Your task to perform on an android device: Search for pizza restaurants on Maps Image 0: 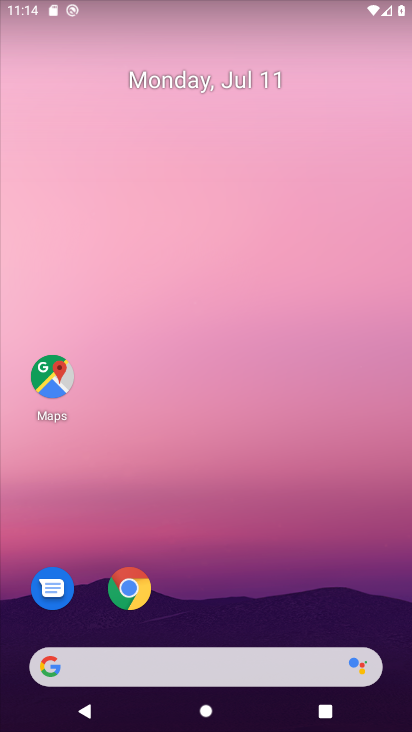
Step 0: drag from (254, 689) to (282, 418)
Your task to perform on an android device: Search for pizza restaurants on Maps Image 1: 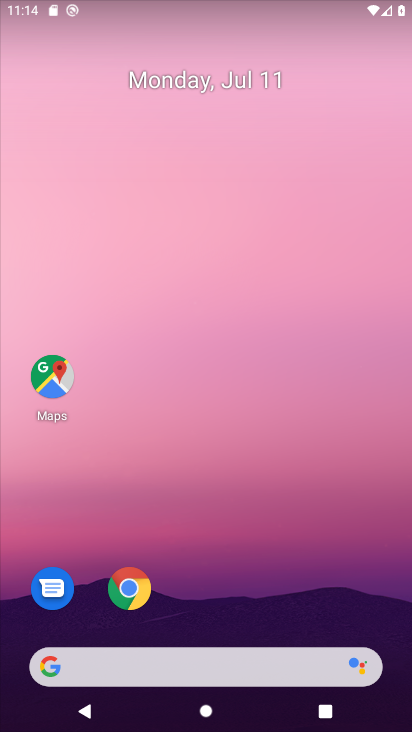
Step 1: drag from (285, 561) to (280, 203)
Your task to perform on an android device: Search for pizza restaurants on Maps Image 2: 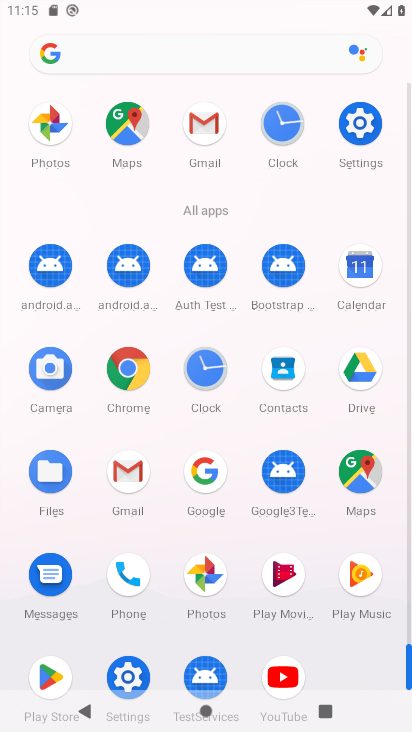
Step 2: press back button
Your task to perform on an android device: Search for pizza restaurants on Maps Image 3: 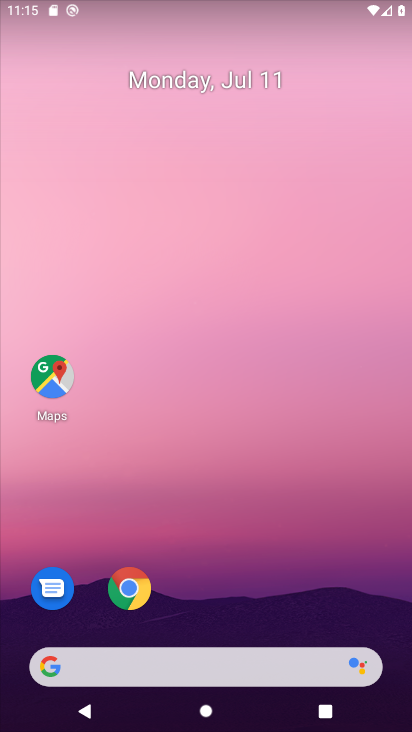
Step 3: drag from (239, 63) to (227, 21)
Your task to perform on an android device: Search for pizza restaurants on Maps Image 4: 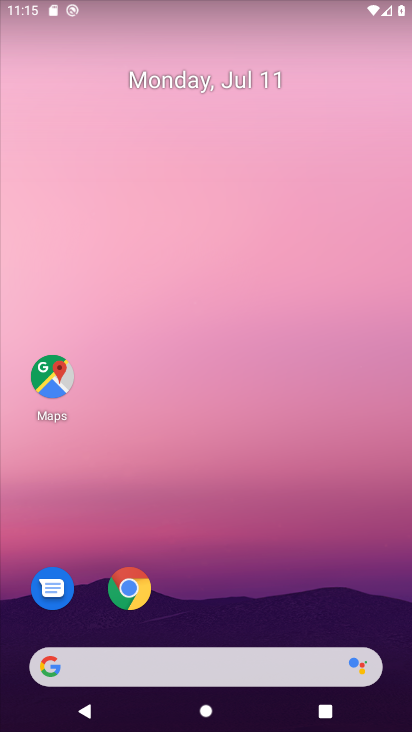
Step 4: click (213, 60)
Your task to perform on an android device: Search for pizza restaurants on Maps Image 5: 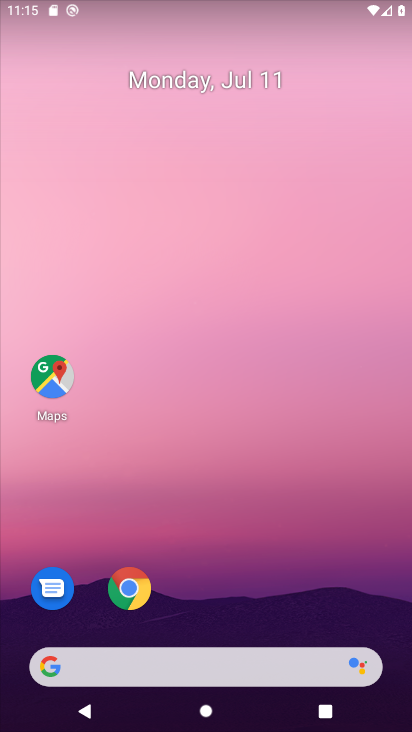
Step 5: drag from (250, 529) to (246, 4)
Your task to perform on an android device: Search for pizza restaurants on Maps Image 6: 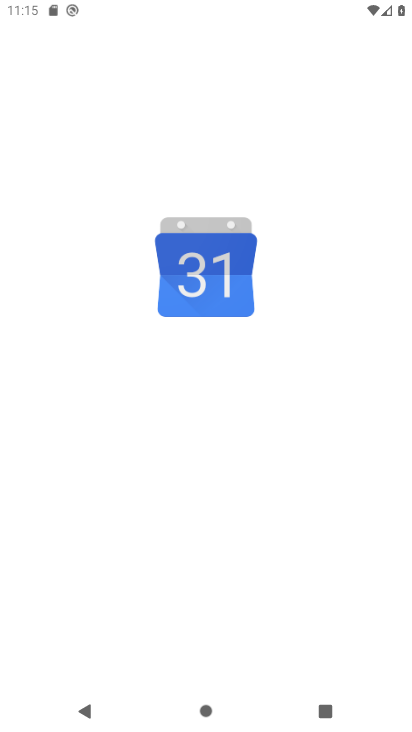
Step 6: drag from (278, 469) to (258, 237)
Your task to perform on an android device: Search for pizza restaurants on Maps Image 7: 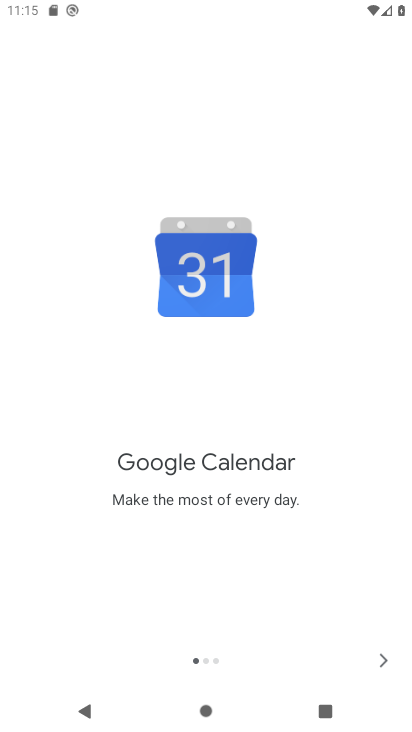
Step 7: press back button
Your task to perform on an android device: Search for pizza restaurants on Maps Image 8: 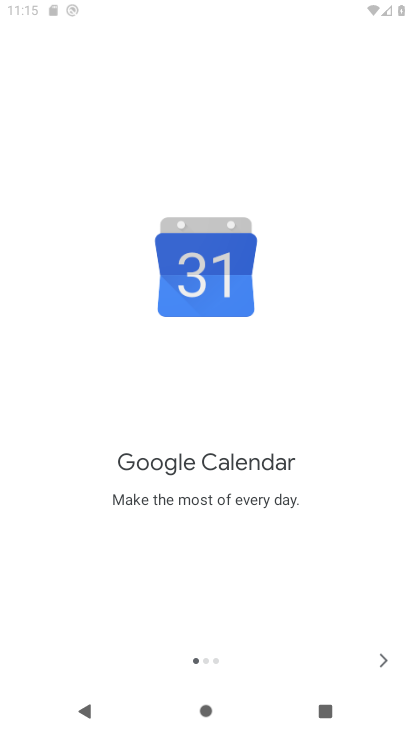
Step 8: press back button
Your task to perform on an android device: Search for pizza restaurants on Maps Image 9: 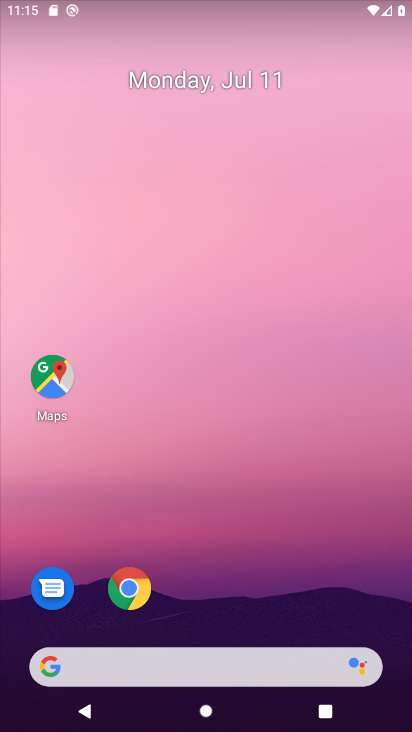
Step 9: drag from (271, 698) to (268, 202)
Your task to perform on an android device: Search for pizza restaurants on Maps Image 10: 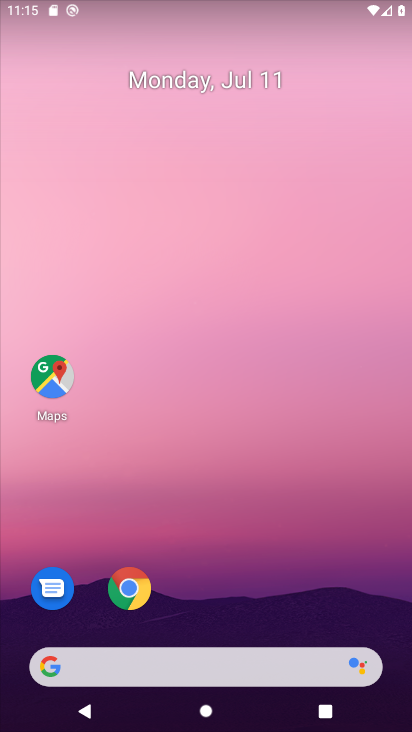
Step 10: drag from (224, 653) to (194, 71)
Your task to perform on an android device: Search for pizza restaurants on Maps Image 11: 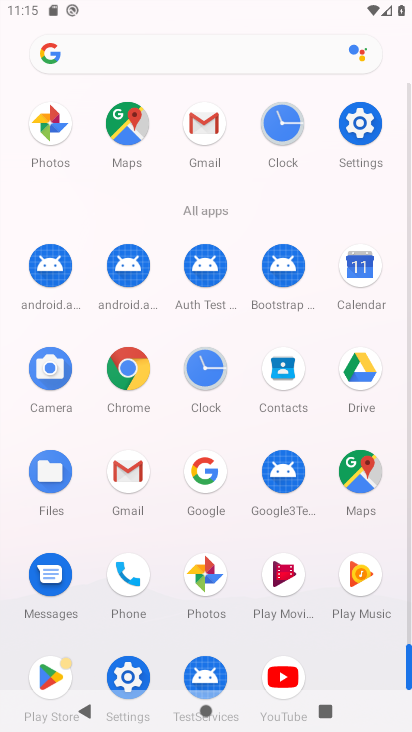
Step 11: click (358, 472)
Your task to perform on an android device: Search for pizza restaurants on Maps Image 12: 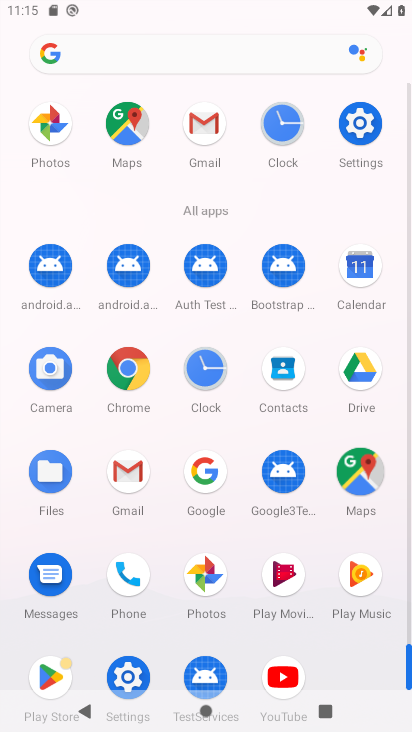
Step 12: click (364, 483)
Your task to perform on an android device: Search for pizza restaurants on Maps Image 13: 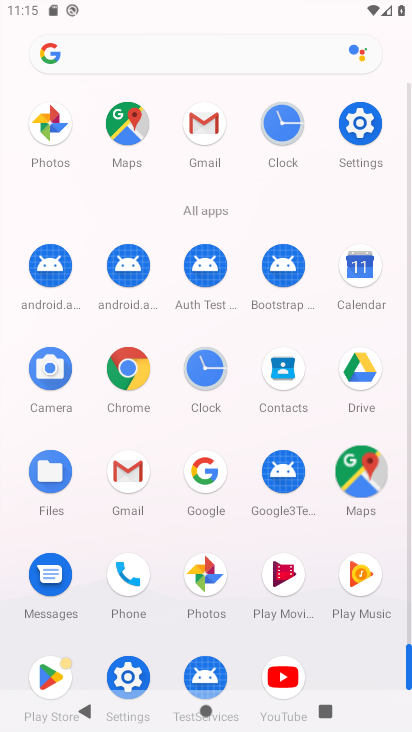
Step 13: click (365, 485)
Your task to perform on an android device: Search for pizza restaurants on Maps Image 14: 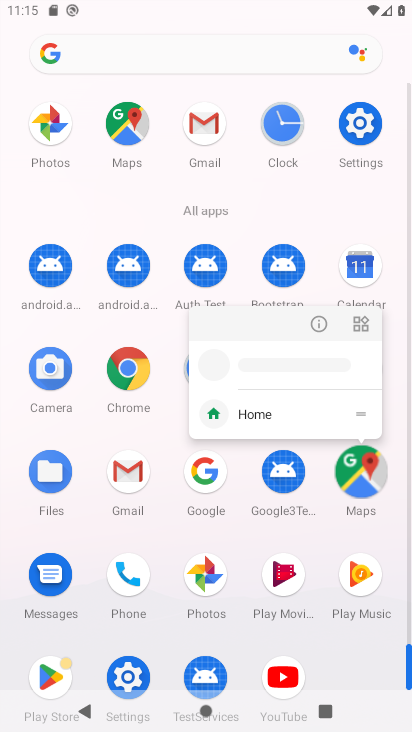
Step 14: click (374, 474)
Your task to perform on an android device: Search for pizza restaurants on Maps Image 15: 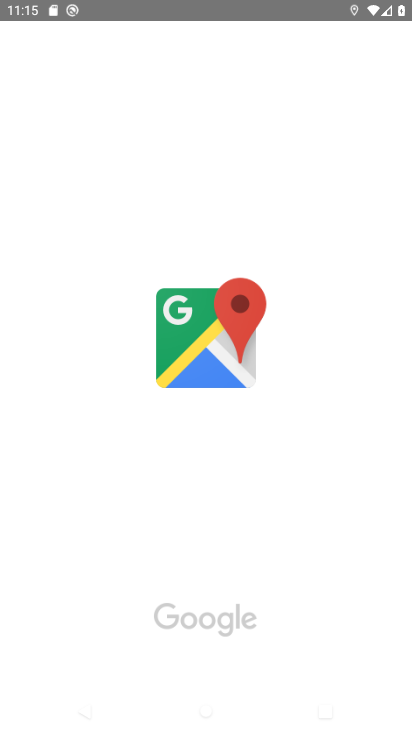
Step 15: click (203, 356)
Your task to perform on an android device: Search for pizza restaurants on Maps Image 16: 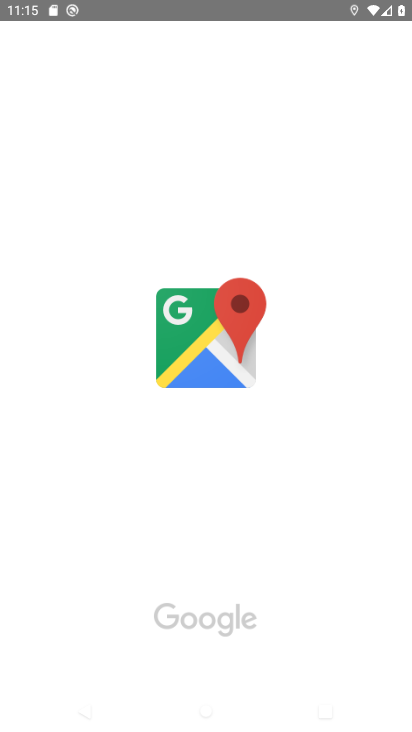
Step 16: click (209, 359)
Your task to perform on an android device: Search for pizza restaurants on Maps Image 17: 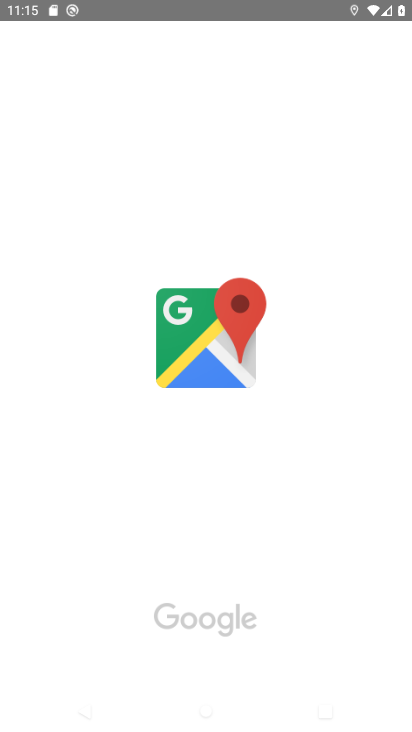
Step 17: click (209, 363)
Your task to perform on an android device: Search for pizza restaurants on Maps Image 18: 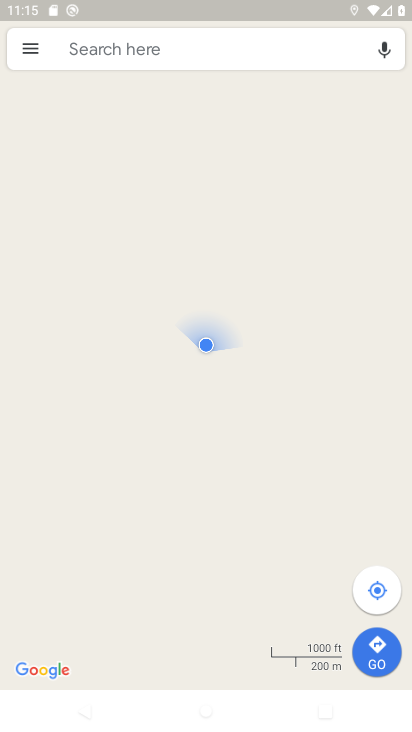
Step 18: click (84, 45)
Your task to perform on an android device: Search for pizza restaurants on Maps Image 19: 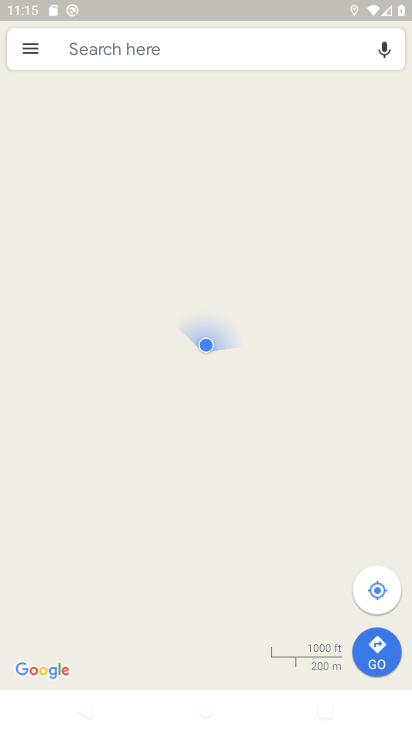
Step 19: click (84, 45)
Your task to perform on an android device: Search for pizza restaurants on Maps Image 20: 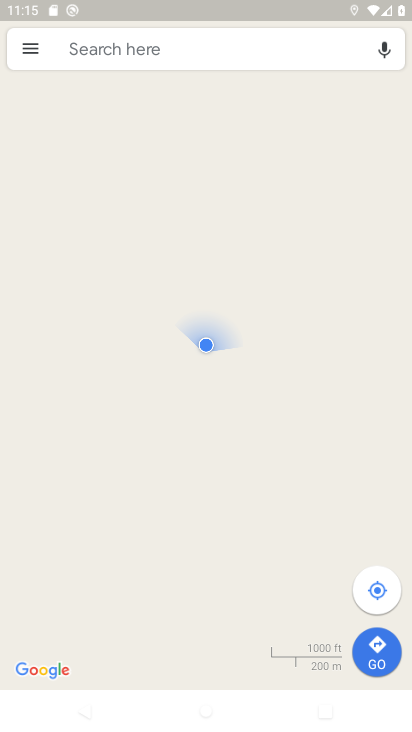
Step 20: click (87, 47)
Your task to perform on an android device: Search for pizza restaurants on Maps Image 21: 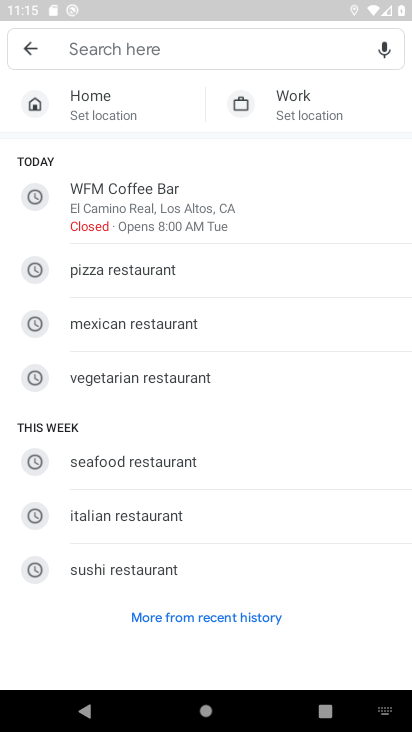
Step 21: type "pizza restaurants"
Your task to perform on an android device: Search for pizza restaurants on Maps Image 22: 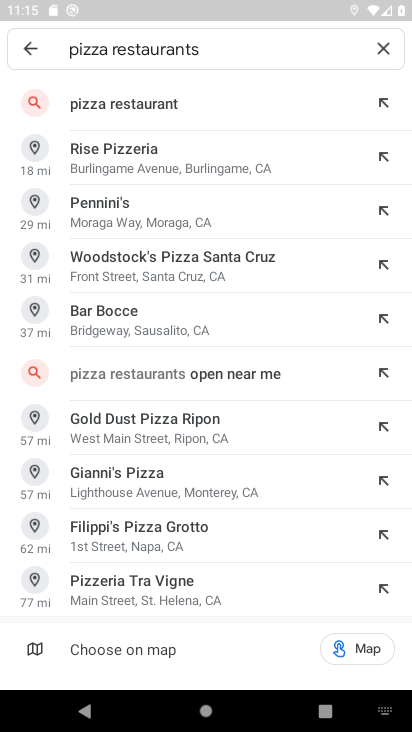
Step 22: click (150, 103)
Your task to perform on an android device: Search for pizza restaurants on Maps Image 23: 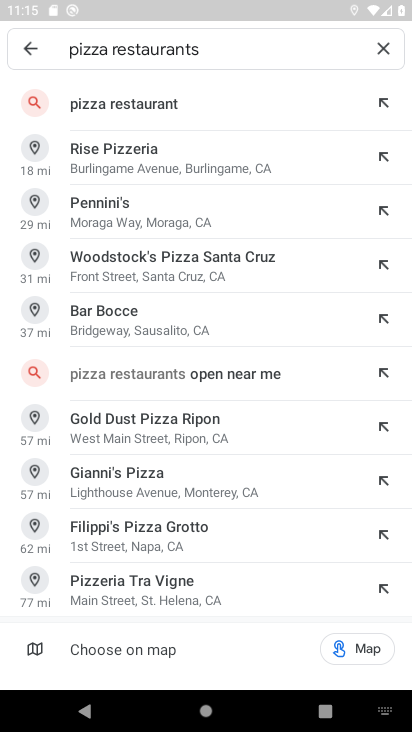
Step 23: click (149, 101)
Your task to perform on an android device: Search for pizza restaurants on Maps Image 24: 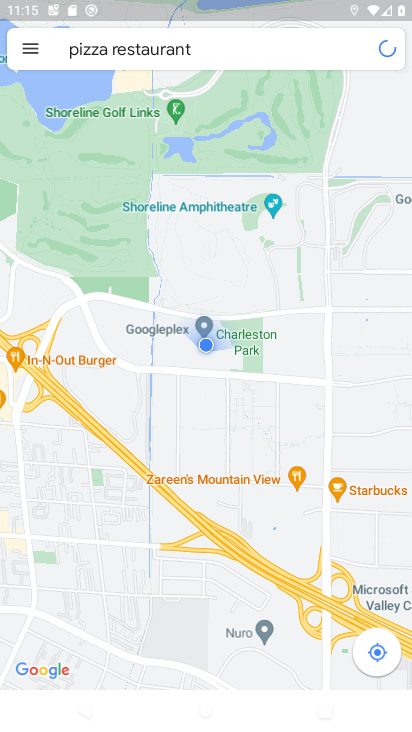
Step 24: task complete